Your task to perform on an android device: open app "Life360: Find Family & Friends" (install if not already installed), go to login, and select forgot password Image 0: 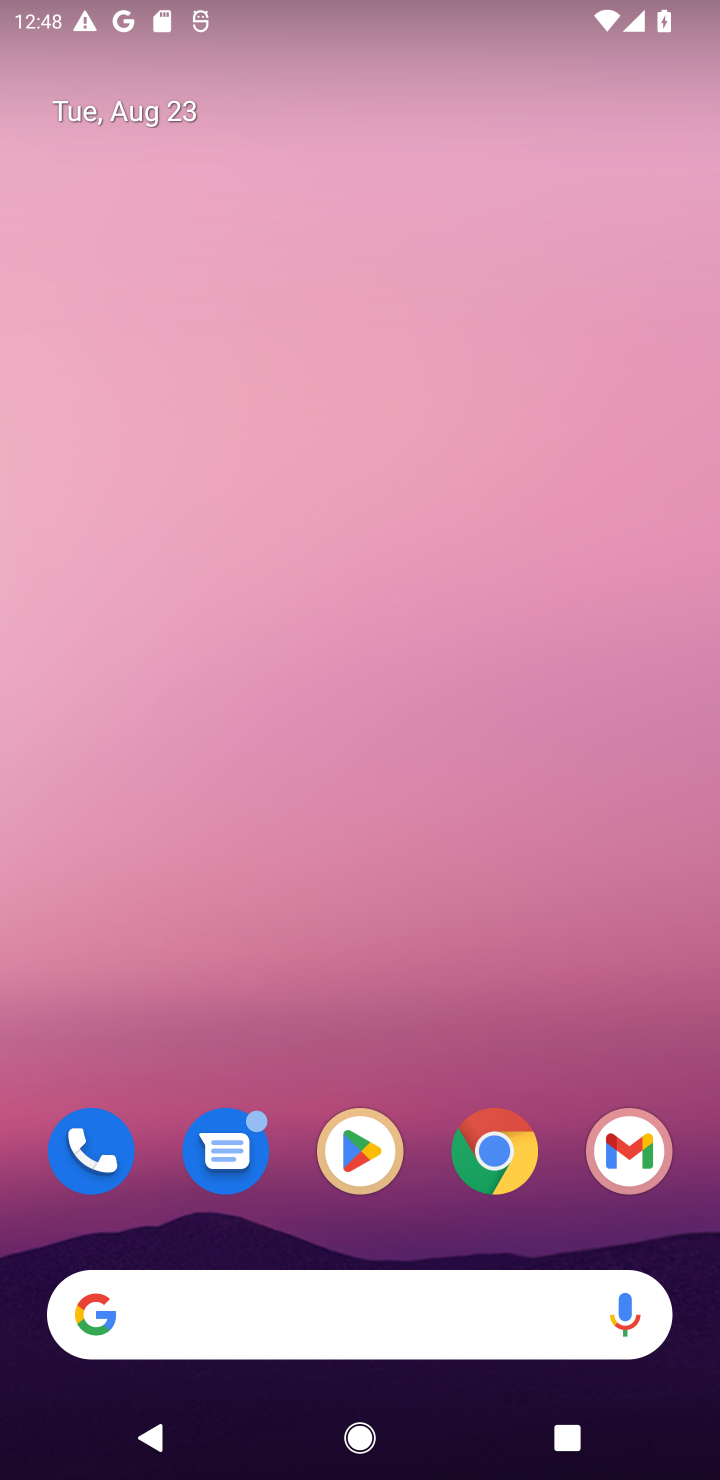
Step 0: click (339, 1146)
Your task to perform on an android device: open app "Life360: Find Family & Friends" (install if not already installed), go to login, and select forgot password Image 1: 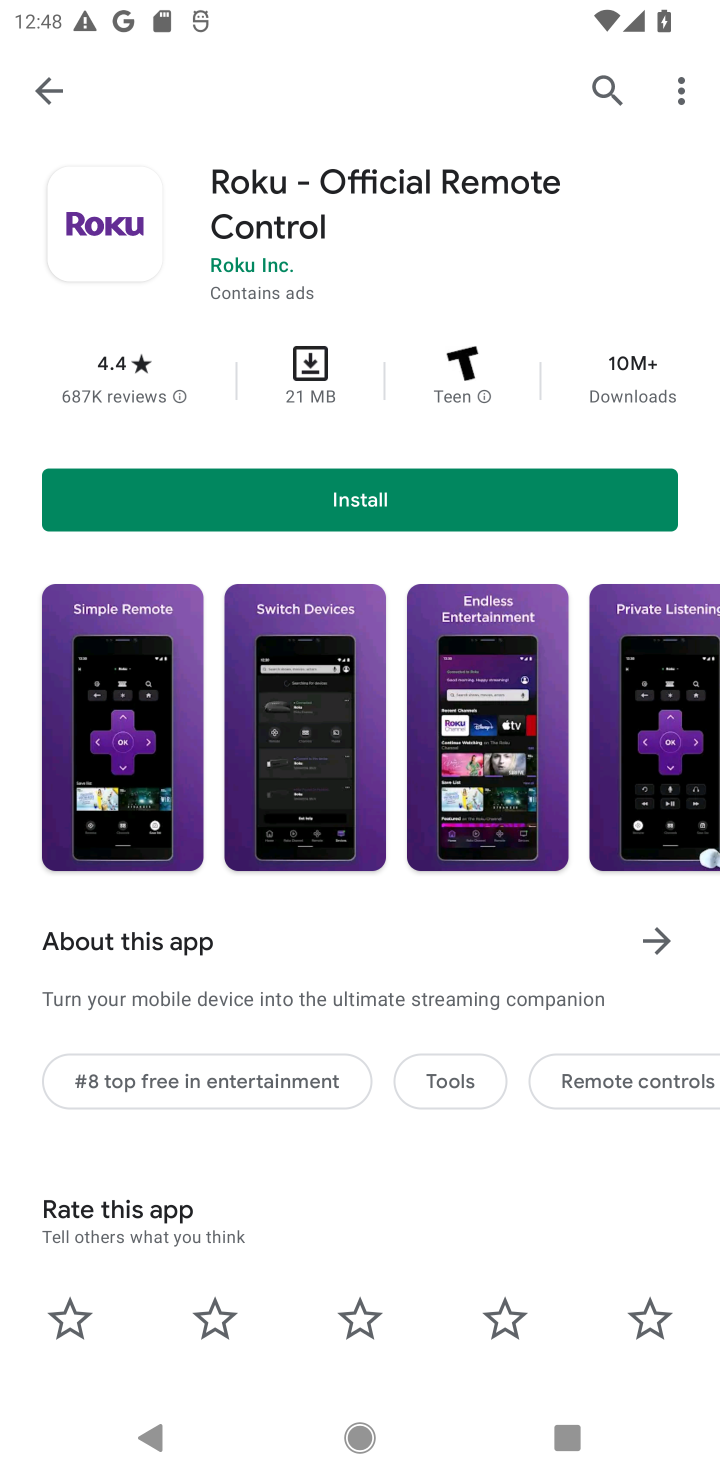
Step 1: click (586, 93)
Your task to perform on an android device: open app "Life360: Find Family & Friends" (install if not already installed), go to login, and select forgot password Image 2: 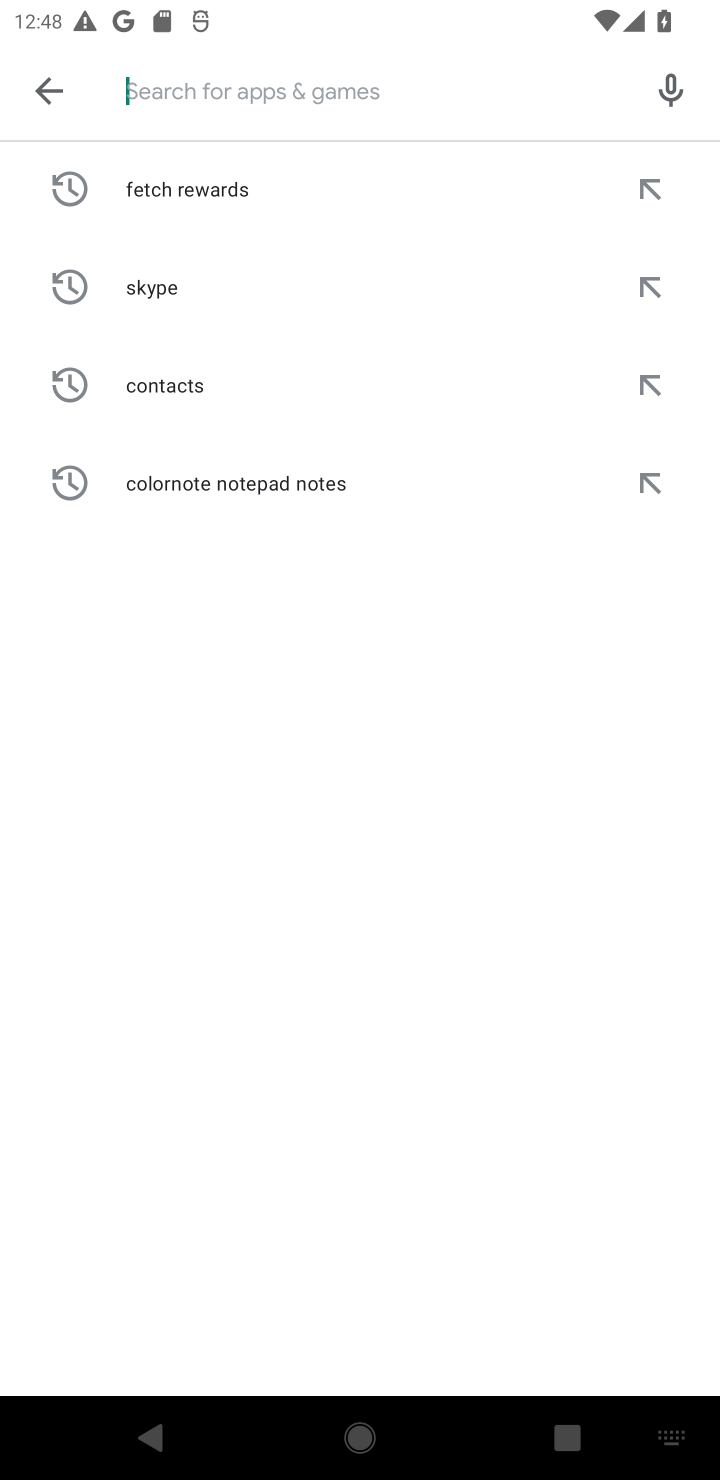
Step 2: type "Life360: Find Family & Friends"
Your task to perform on an android device: open app "Life360: Find Family & Friends" (install if not already installed), go to login, and select forgot password Image 3: 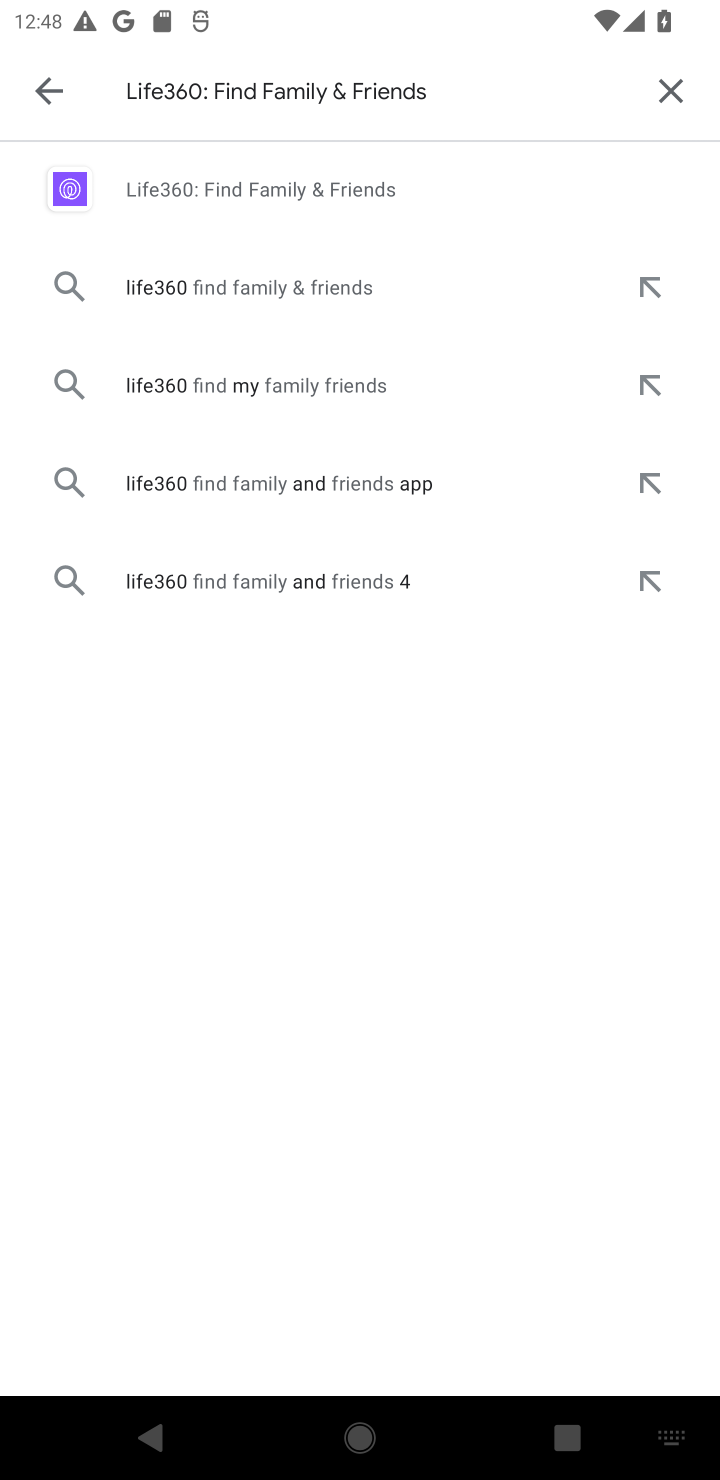
Step 3: click (145, 174)
Your task to perform on an android device: open app "Life360: Find Family & Friends" (install if not already installed), go to login, and select forgot password Image 4: 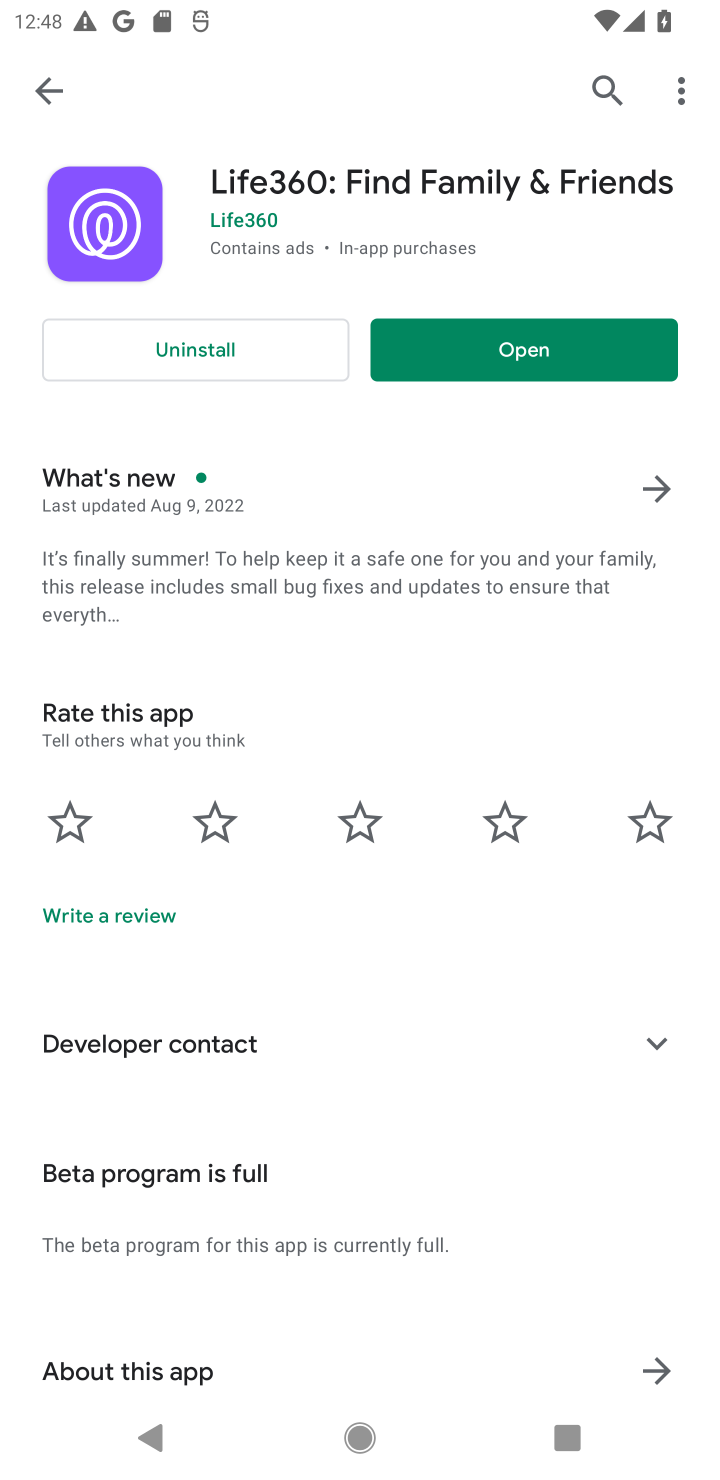
Step 4: click (457, 365)
Your task to perform on an android device: open app "Life360: Find Family & Friends" (install if not already installed), go to login, and select forgot password Image 5: 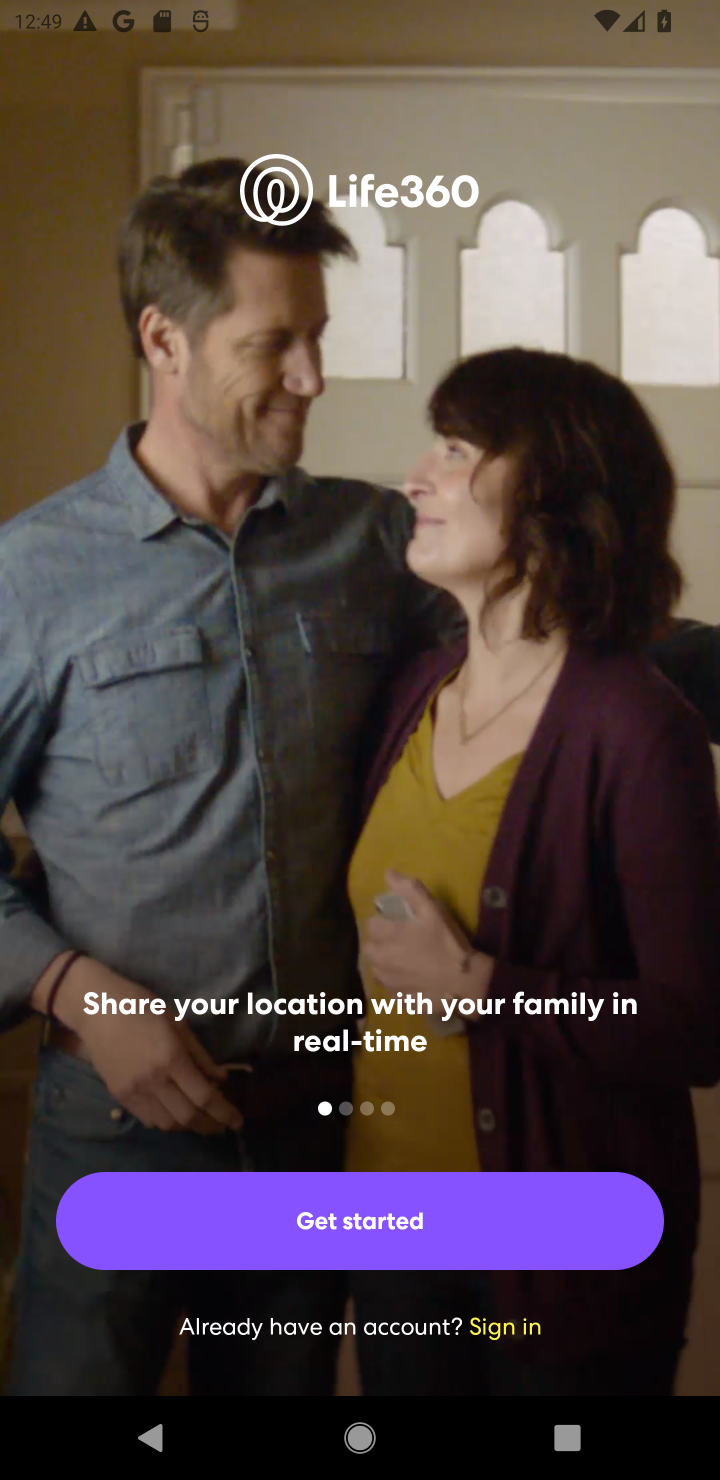
Step 5: task complete